Your task to perform on an android device: Open Reddit.com Image 0: 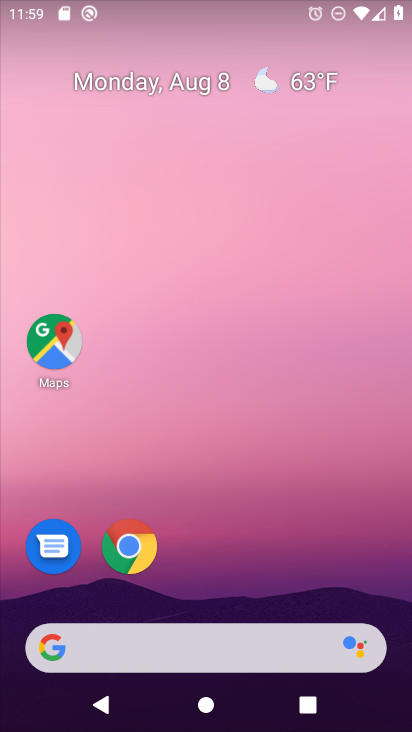
Step 0: drag from (207, 6) to (260, 520)
Your task to perform on an android device: Open Reddit.com Image 1: 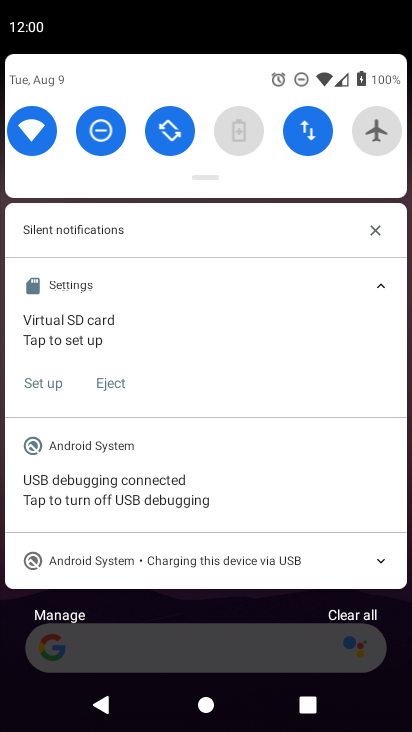
Step 1: drag from (264, 651) to (313, 89)
Your task to perform on an android device: Open Reddit.com Image 2: 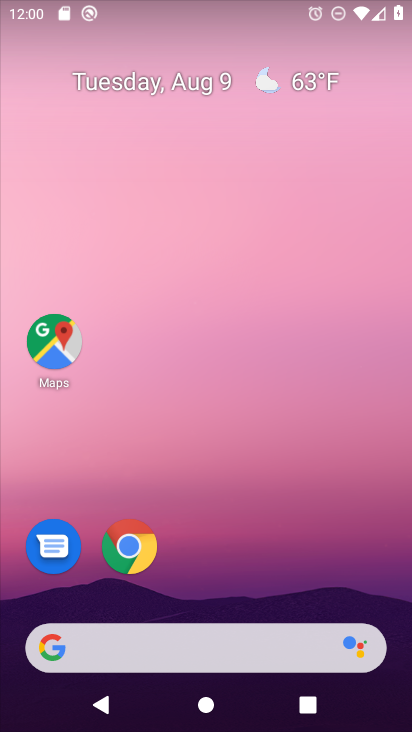
Step 2: click (124, 540)
Your task to perform on an android device: Open Reddit.com Image 3: 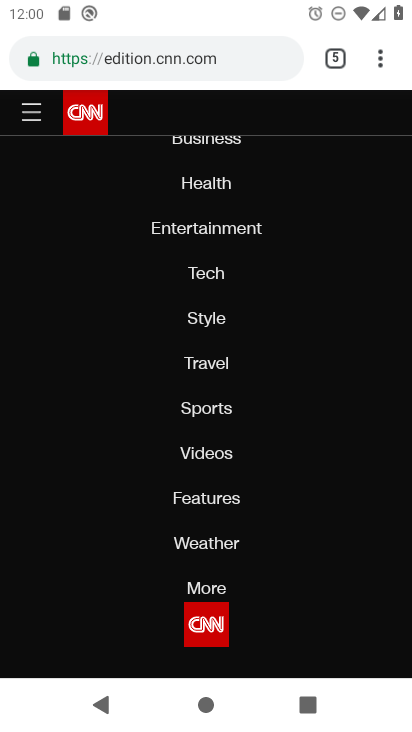
Step 3: click (338, 60)
Your task to perform on an android device: Open Reddit.com Image 4: 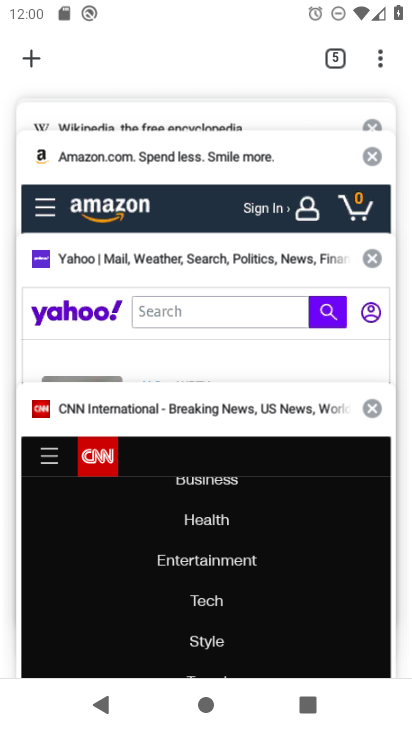
Step 4: click (33, 62)
Your task to perform on an android device: Open Reddit.com Image 5: 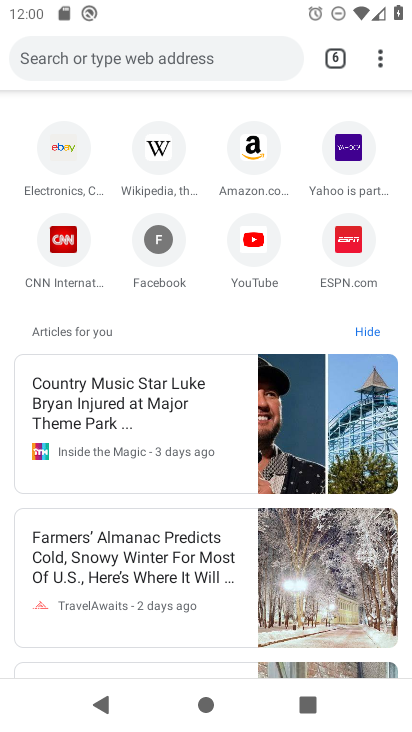
Step 5: click (114, 52)
Your task to perform on an android device: Open Reddit.com Image 6: 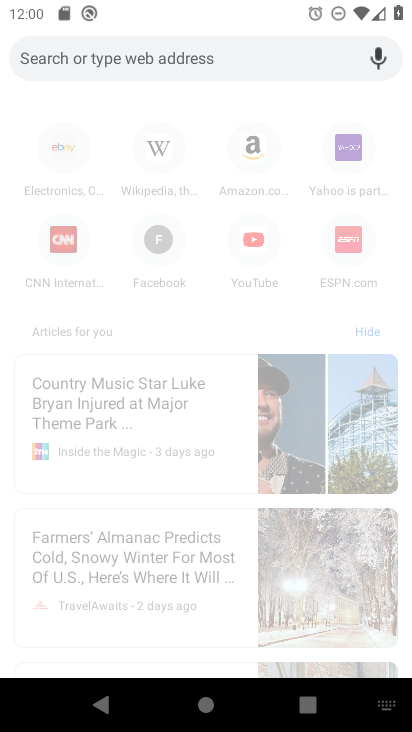
Step 6: type "reddit.com"
Your task to perform on an android device: Open Reddit.com Image 7: 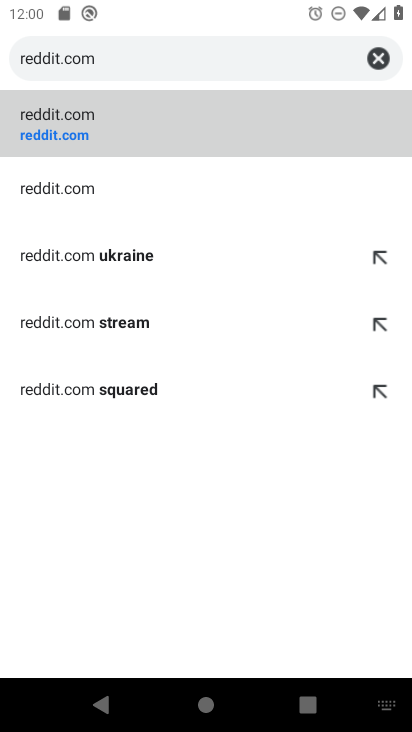
Step 7: click (102, 129)
Your task to perform on an android device: Open Reddit.com Image 8: 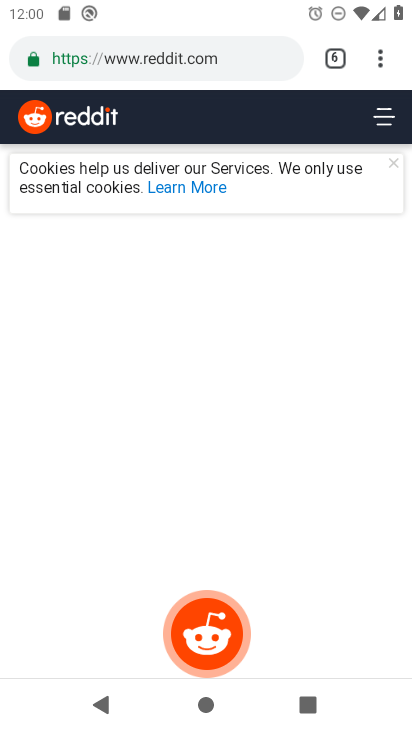
Step 8: task complete